Your task to perform on an android device: Open the map Image 0: 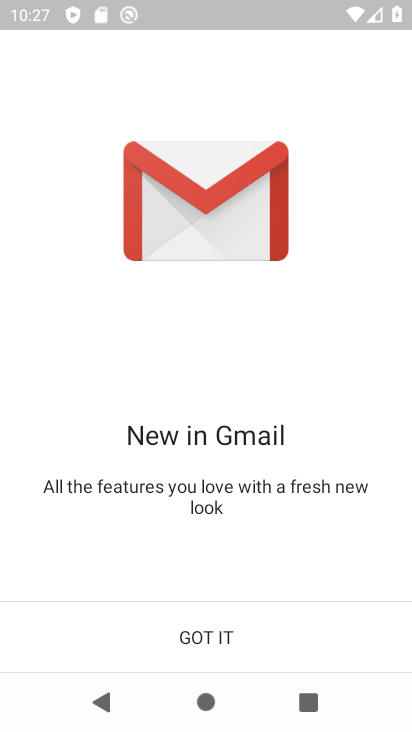
Step 0: press home button
Your task to perform on an android device: Open the map Image 1: 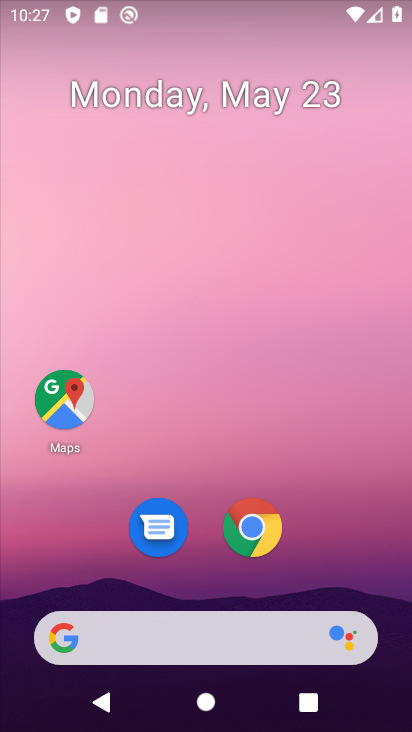
Step 1: click (53, 413)
Your task to perform on an android device: Open the map Image 2: 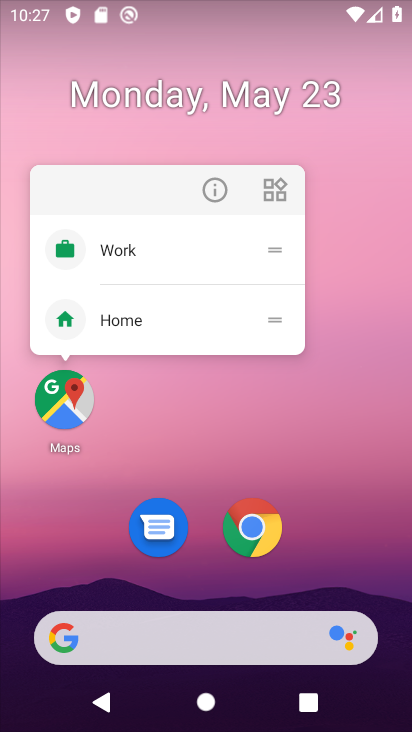
Step 2: click (54, 411)
Your task to perform on an android device: Open the map Image 3: 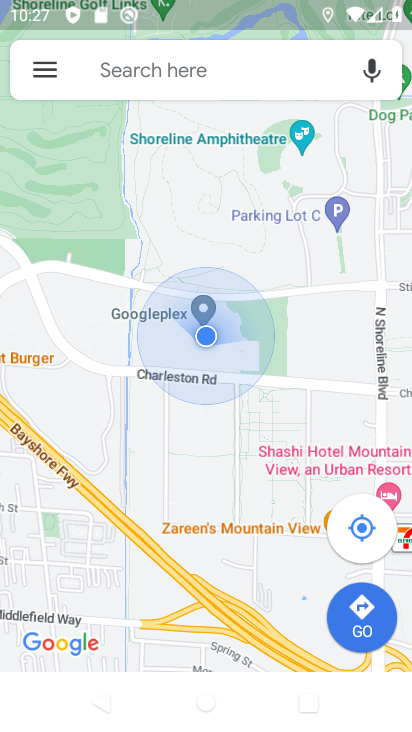
Step 3: task complete